Your task to perform on an android device: Go to privacy settings Image 0: 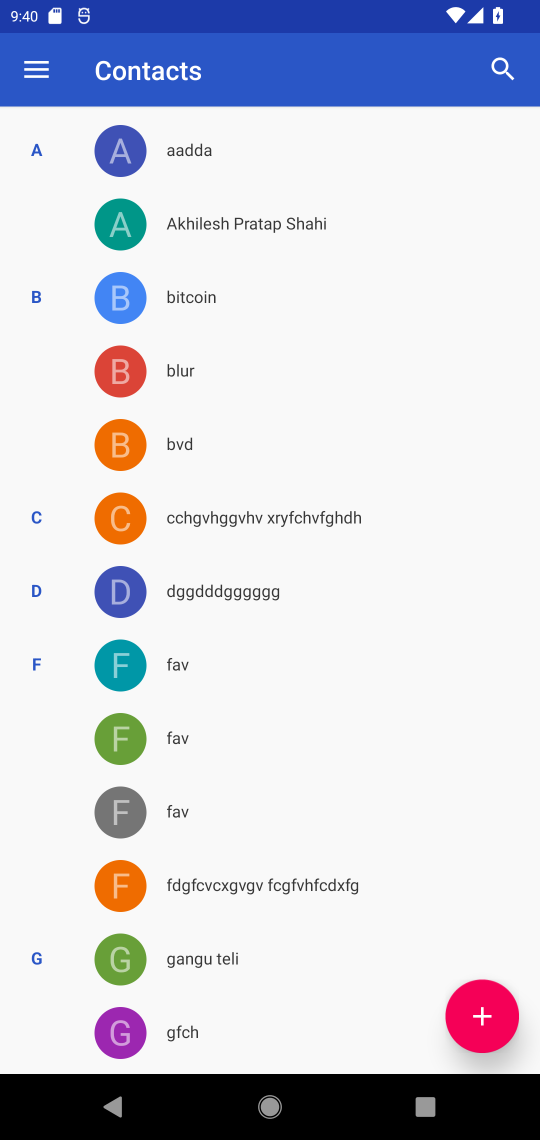
Step 0: press home button
Your task to perform on an android device: Go to privacy settings Image 1: 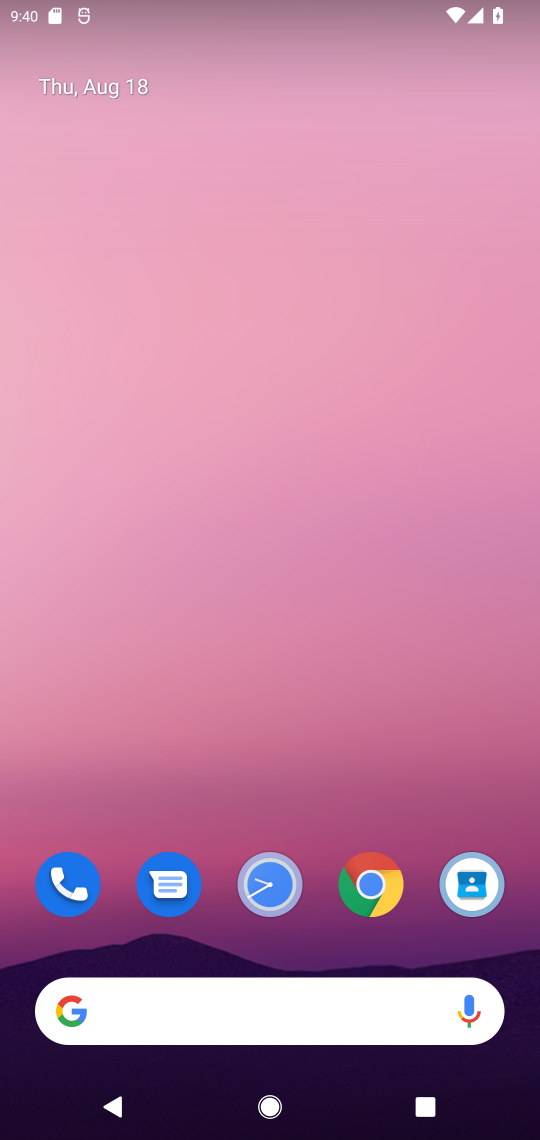
Step 1: drag from (314, 952) to (517, 100)
Your task to perform on an android device: Go to privacy settings Image 2: 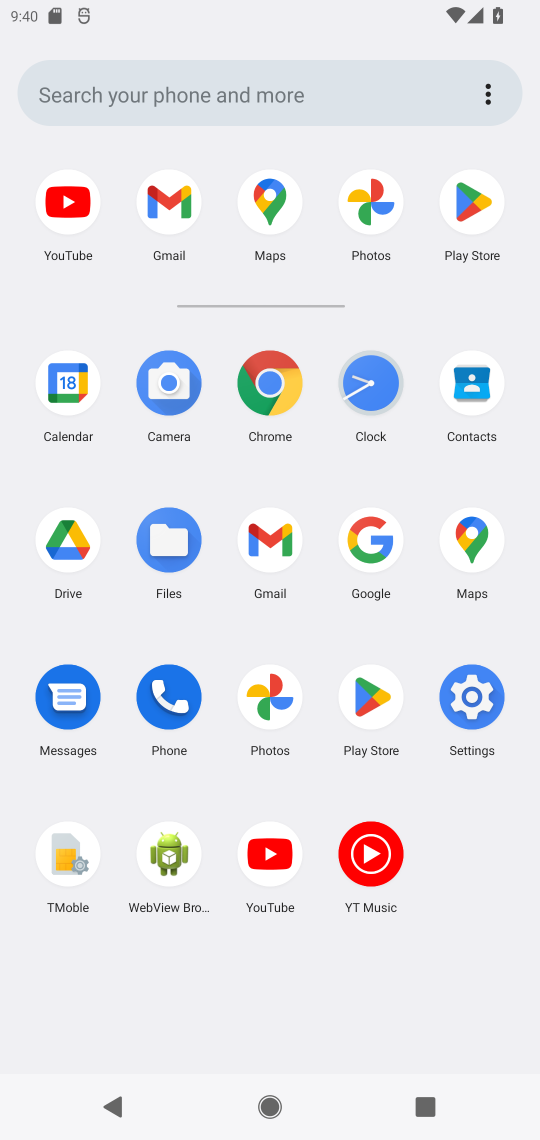
Step 2: click (483, 695)
Your task to perform on an android device: Go to privacy settings Image 3: 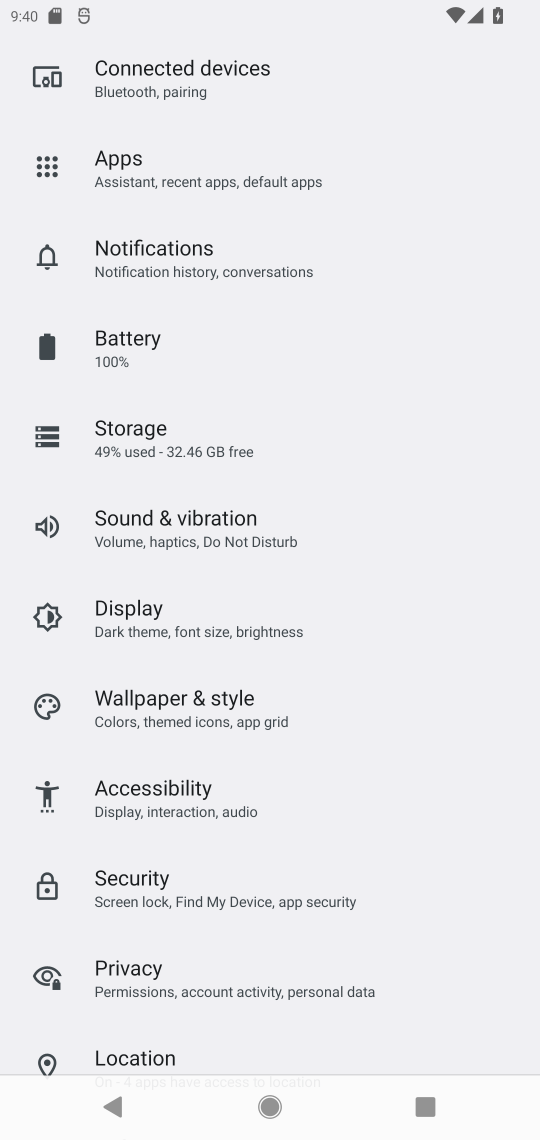
Step 3: click (179, 987)
Your task to perform on an android device: Go to privacy settings Image 4: 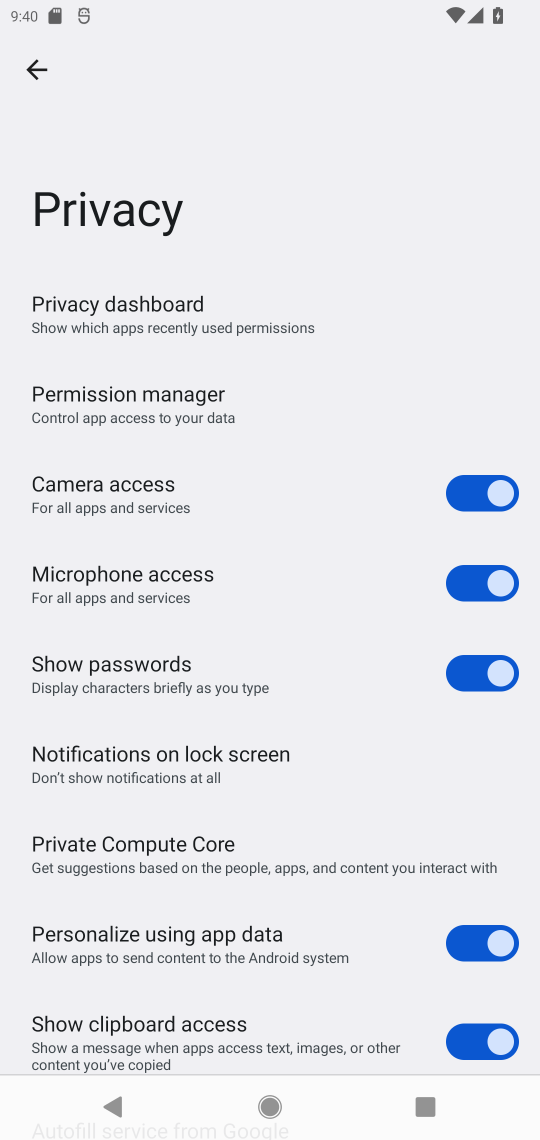
Step 4: task complete